Your task to perform on an android device: Go to Reddit.com Image 0: 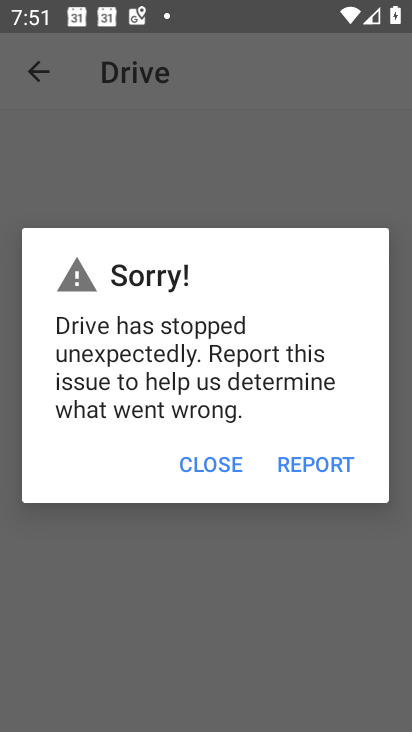
Step 0: press home button
Your task to perform on an android device: Go to Reddit.com Image 1: 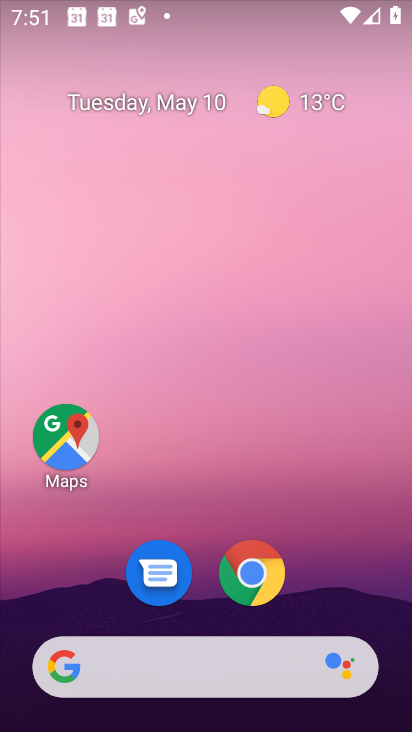
Step 1: click (262, 577)
Your task to perform on an android device: Go to Reddit.com Image 2: 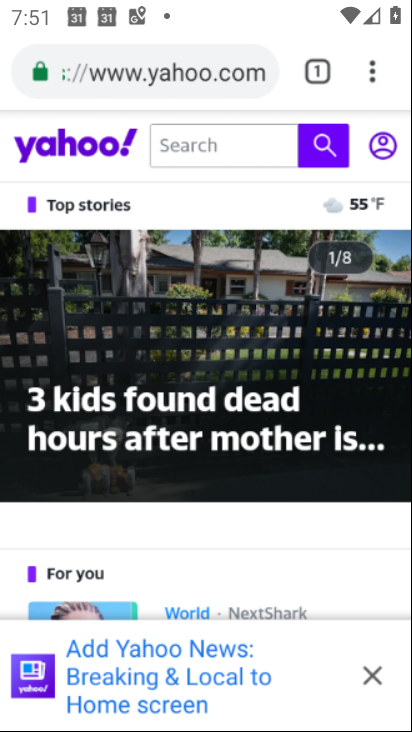
Step 2: click (154, 71)
Your task to perform on an android device: Go to Reddit.com Image 3: 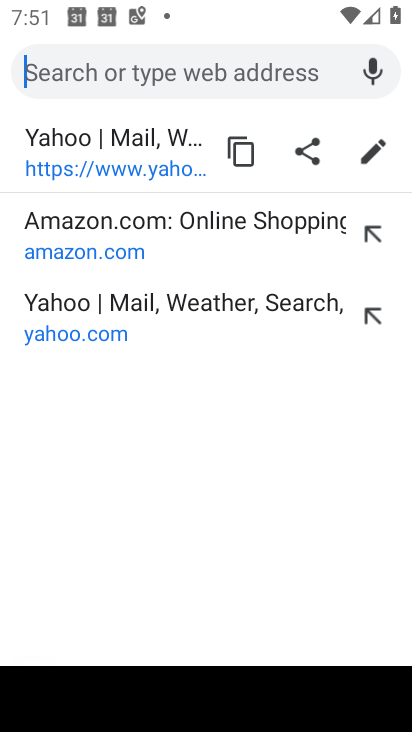
Step 3: type "reddit.com"
Your task to perform on an android device: Go to Reddit.com Image 4: 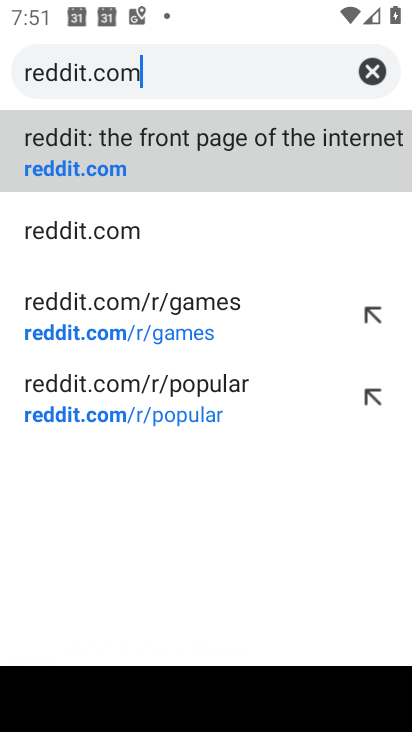
Step 4: click (95, 173)
Your task to perform on an android device: Go to Reddit.com Image 5: 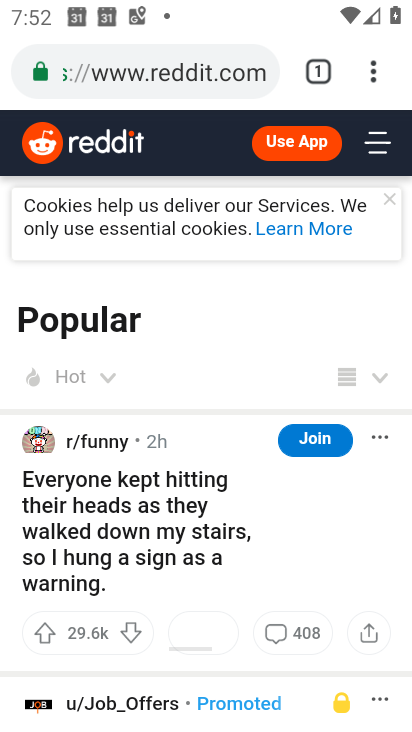
Step 5: task complete